Your task to perform on an android device: open a new tab in the chrome app Image 0: 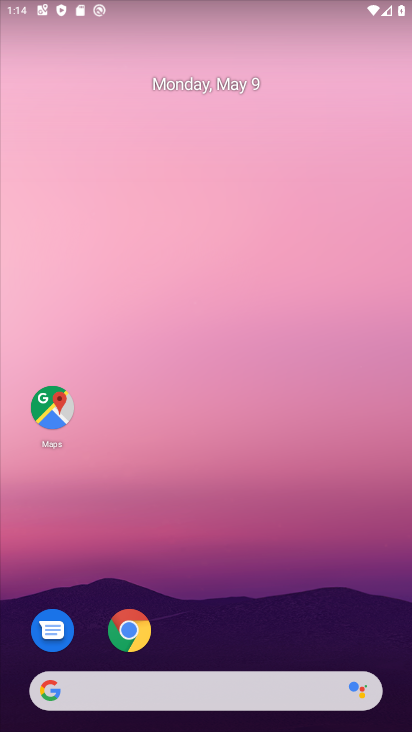
Step 0: drag from (323, 710) to (189, 245)
Your task to perform on an android device: open a new tab in the chrome app Image 1: 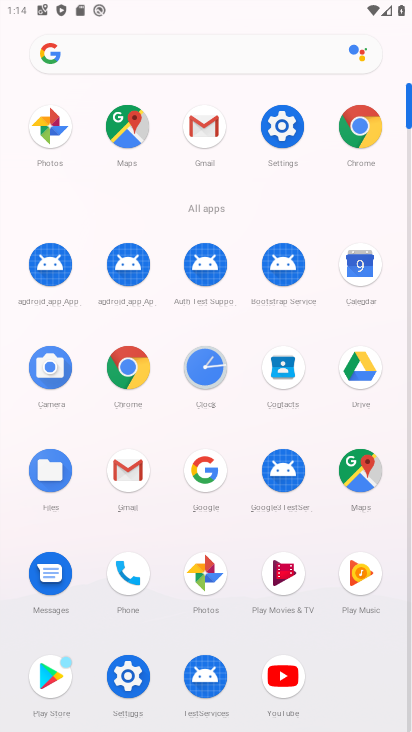
Step 1: click (122, 371)
Your task to perform on an android device: open a new tab in the chrome app Image 2: 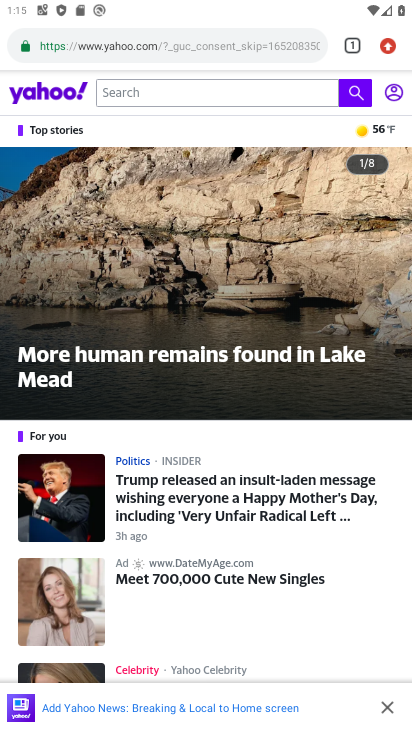
Step 2: click (383, 51)
Your task to perform on an android device: open a new tab in the chrome app Image 3: 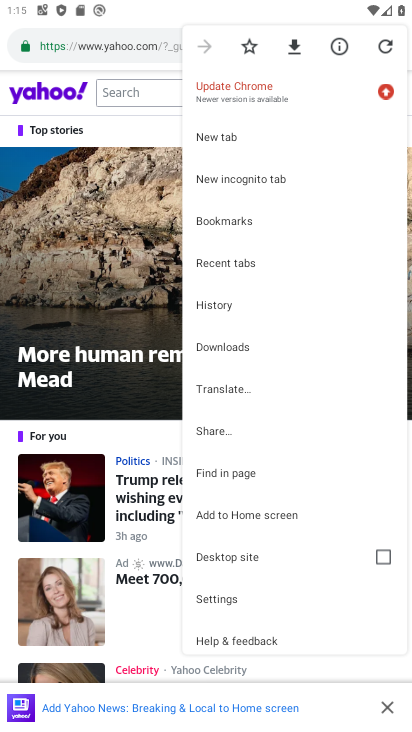
Step 3: click (264, 133)
Your task to perform on an android device: open a new tab in the chrome app Image 4: 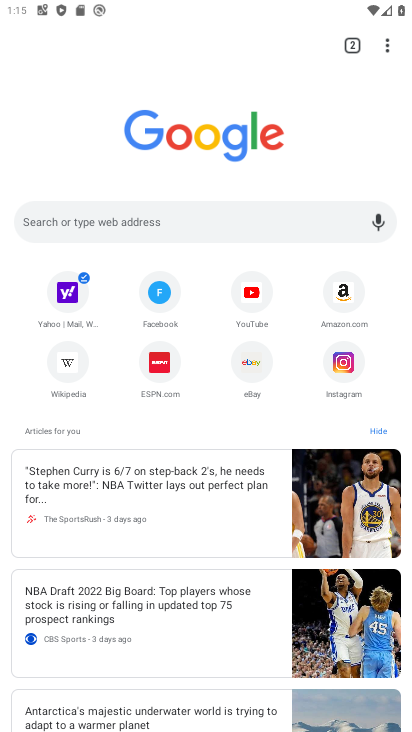
Step 4: task complete